Your task to perform on an android device: check data usage Image 0: 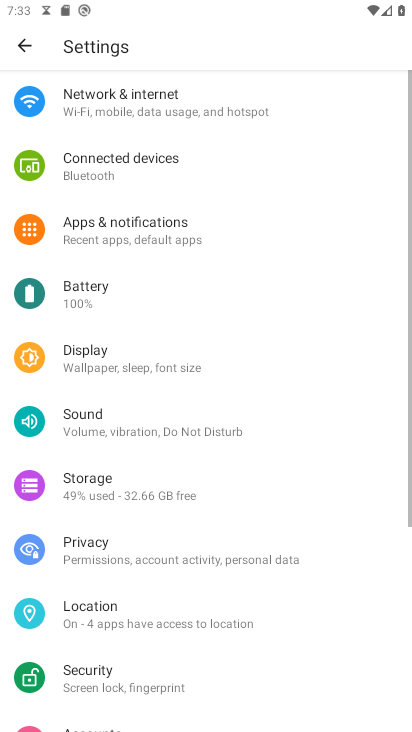
Step 0: press home button
Your task to perform on an android device: check data usage Image 1: 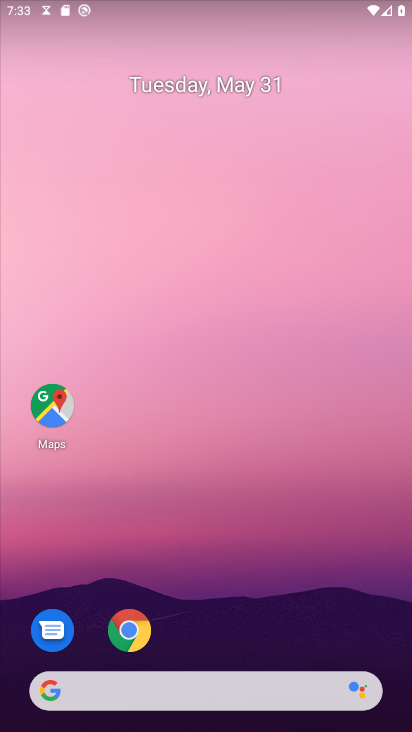
Step 1: drag from (242, 619) to (193, 164)
Your task to perform on an android device: check data usage Image 2: 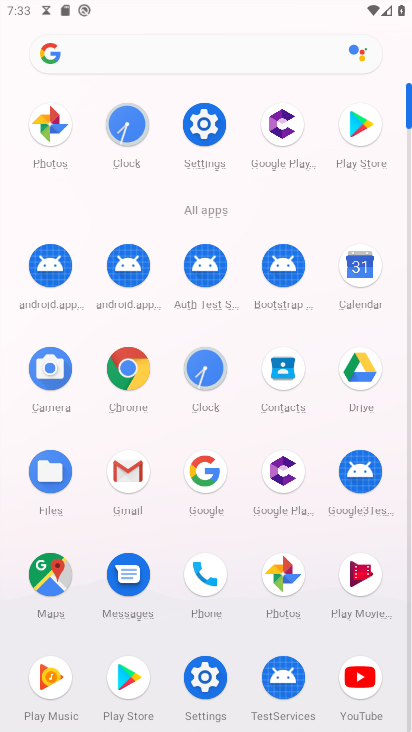
Step 2: click (204, 124)
Your task to perform on an android device: check data usage Image 3: 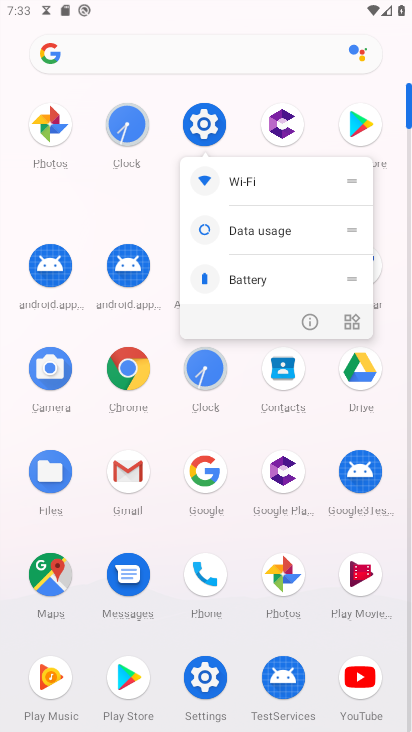
Step 3: click (204, 124)
Your task to perform on an android device: check data usage Image 4: 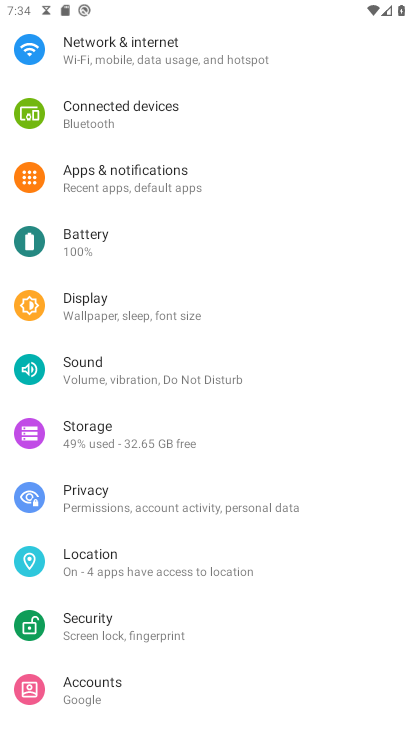
Step 4: click (151, 57)
Your task to perform on an android device: check data usage Image 5: 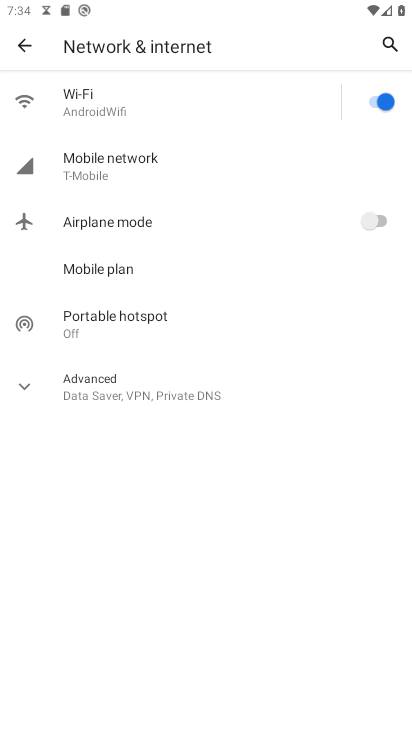
Step 5: click (72, 183)
Your task to perform on an android device: check data usage Image 6: 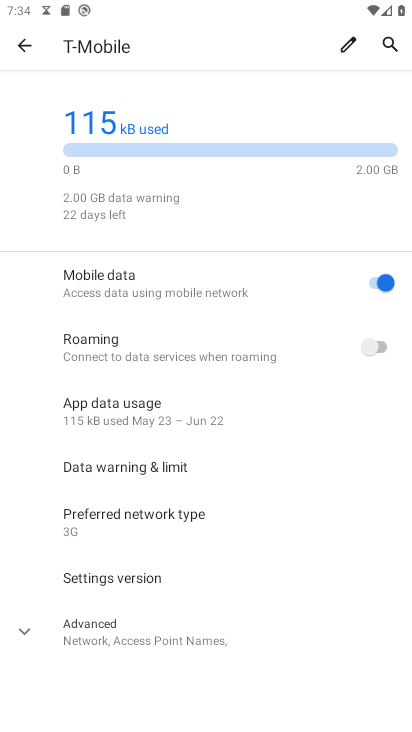
Step 6: task complete